Your task to perform on an android device: Show me recent news Image 0: 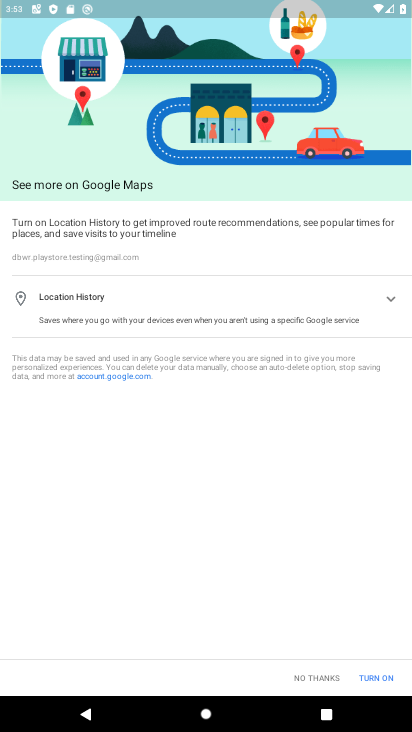
Step 0: press home button
Your task to perform on an android device: Show me recent news Image 1: 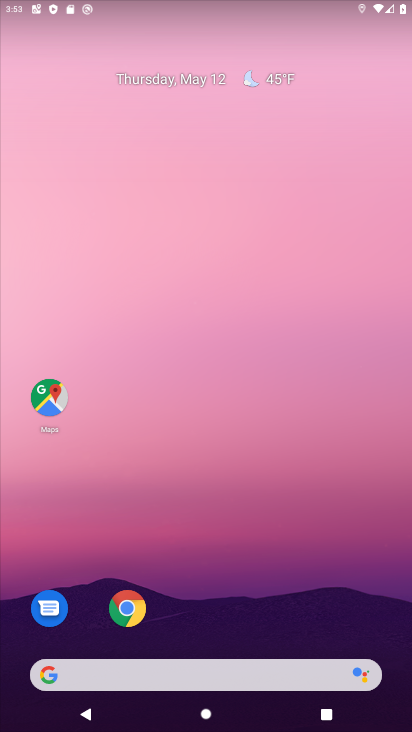
Step 1: click (114, 601)
Your task to perform on an android device: Show me recent news Image 2: 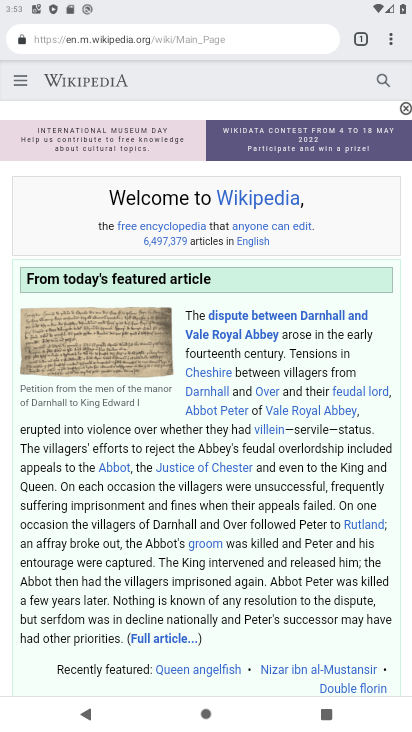
Step 2: click (252, 39)
Your task to perform on an android device: Show me recent news Image 3: 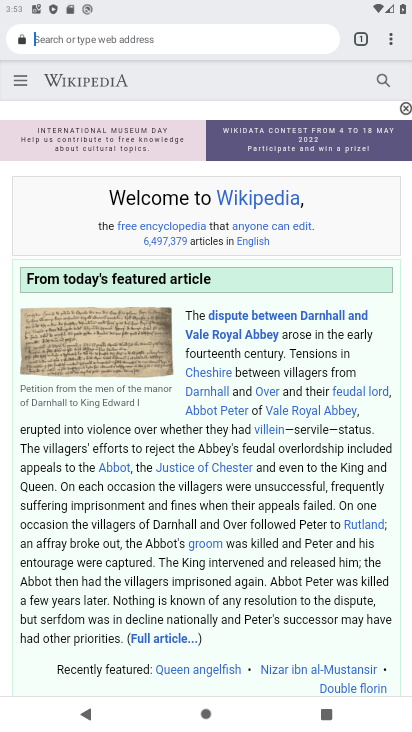
Step 3: click (252, 39)
Your task to perform on an android device: Show me recent news Image 4: 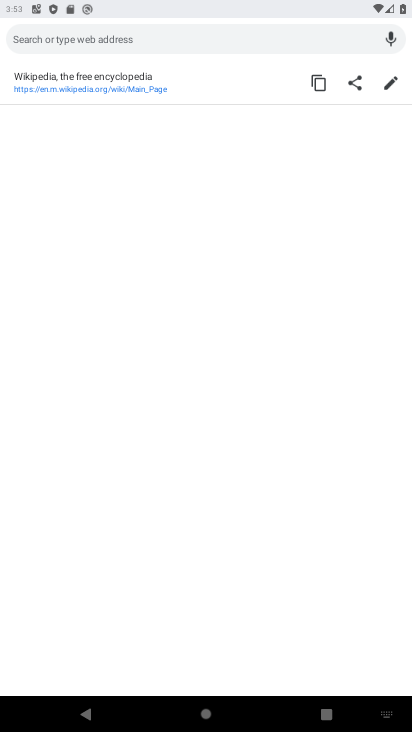
Step 4: type "Show me recent news"
Your task to perform on an android device: Show me recent news Image 5: 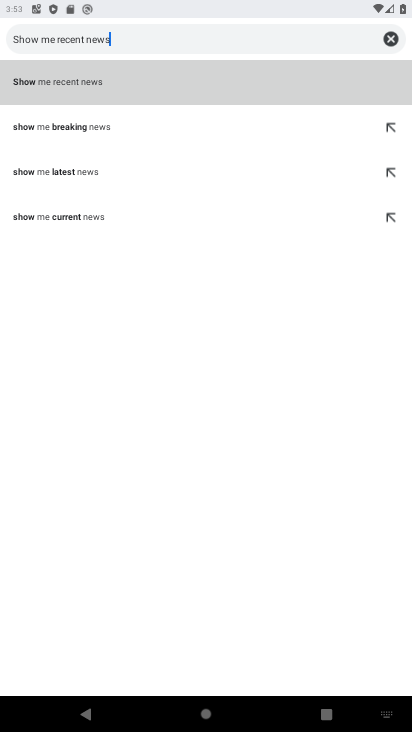
Step 5: click (87, 76)
Your task to perform on an android device: Show me recent news Image 6: 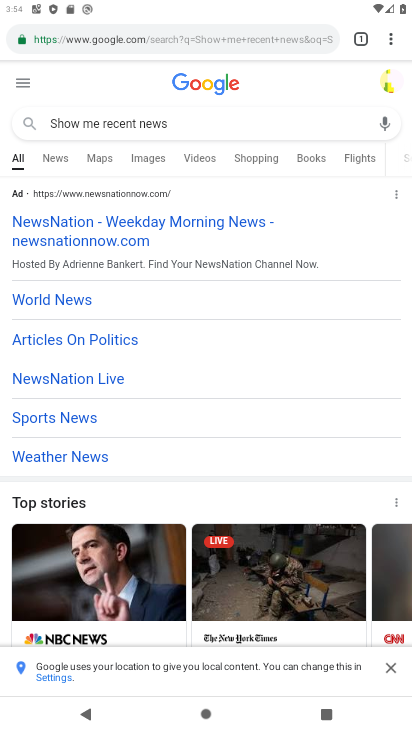
Step 6: task complete